Your task to perform on an android device: move an email to a new category in the gmail app Image 0: 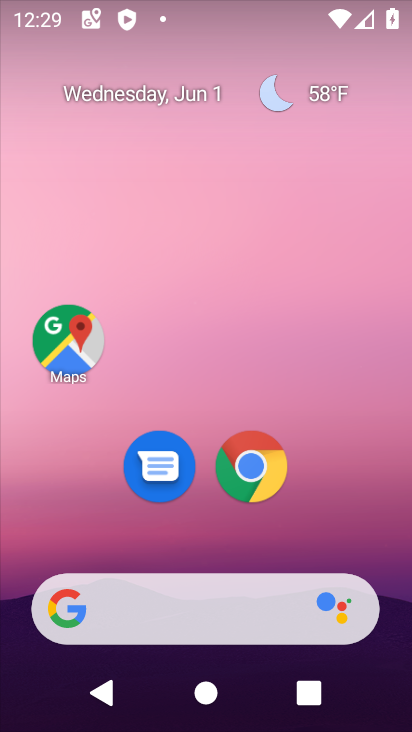
Step 0: drag from (399, 570) to (281, 282)
Your task to perform on an android device: move an email to a new category in the gmail app Image 1: 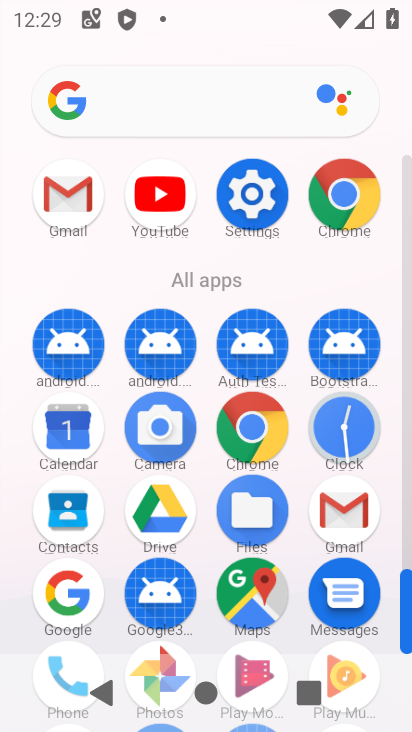
Step 1: click (69, 211)
Your task to perform on an android device: move an email to a new category in the gmail app Image 2: 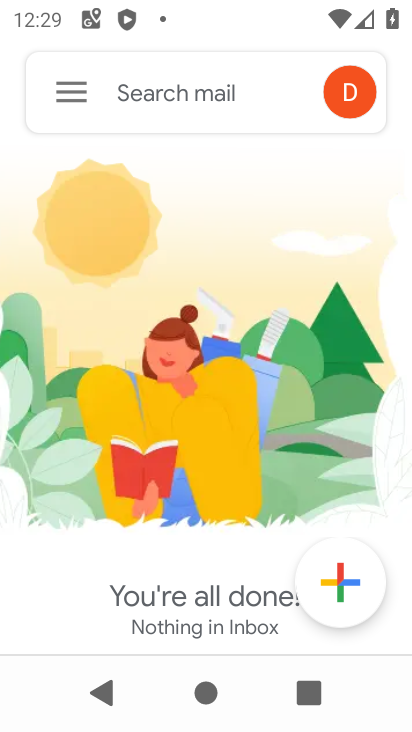
Step 2: click (67, 118)
Your task to perform on an android device: move an email to a new category in the gmail app Image 3: 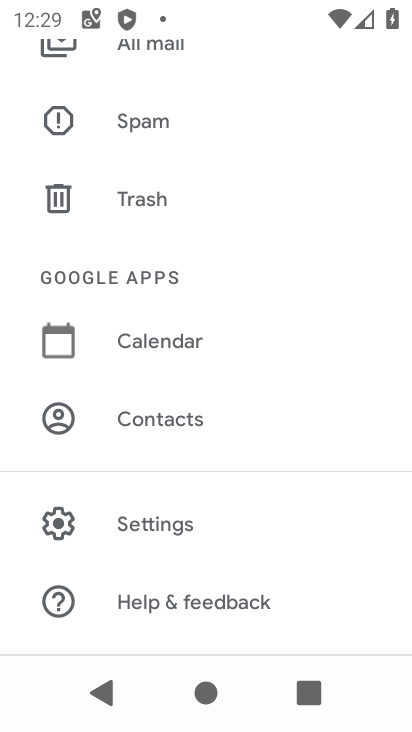
Step 3: drag from (213, 139) to (238, 537)
Your task to perform on an android device: move an email to a new category in the gmail app Image 4: 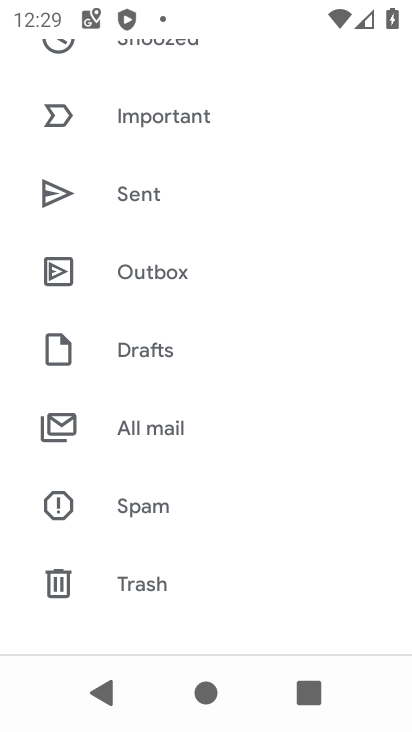
Step 4: click (193, 452)
Your task to perform on an android device: move an email to a new category in the gmail app Image 5: 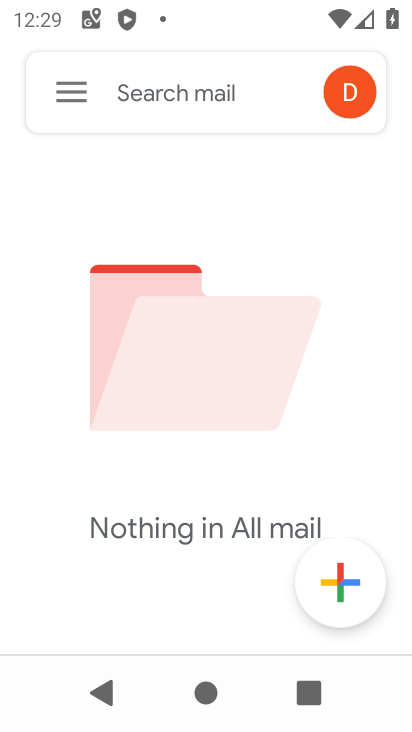
Step 5: task complete